Your task to perform on an android device: Open the map Image 0: 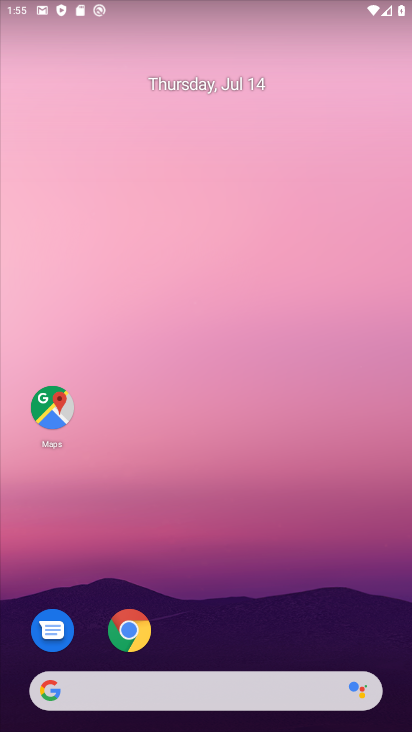
Step 0: click (55, 406)
Your task to perform on an android device: Open the map Image 1: 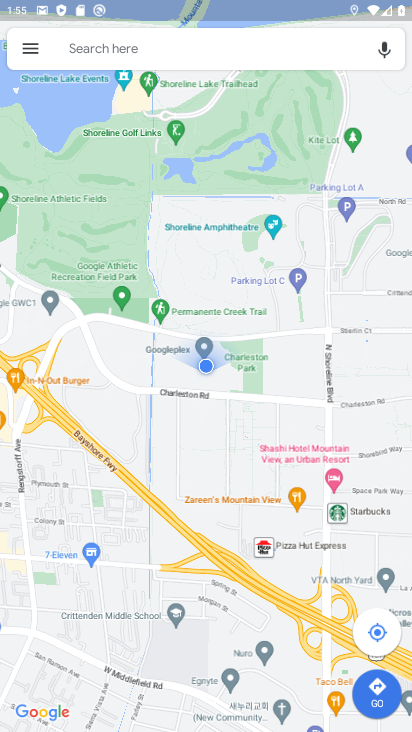
Step 1: task complete